Your task to perform on an android device: check the backup settings in the google photos Image 0: 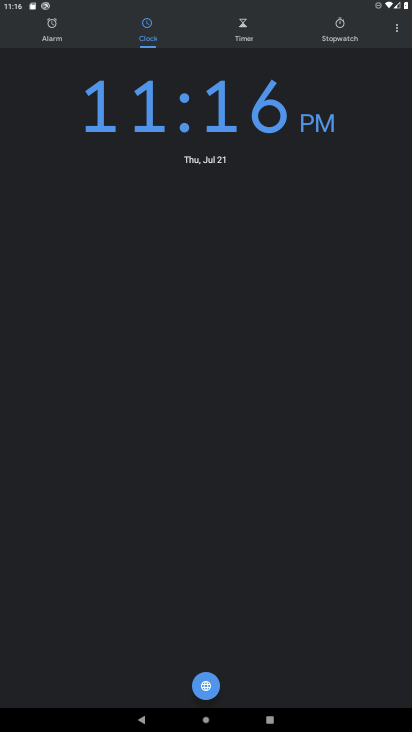
Step 0: press home button
Your task to perform on an android device: check the backup settings in the google photos Image 1: 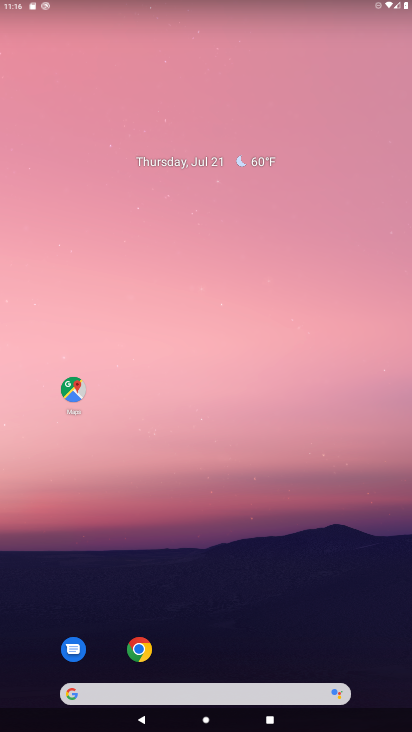
Step 1: drag from (383, 698) to (312, 51)
Your task to perform on an android device: check the backup settings in the google photos Image 2: 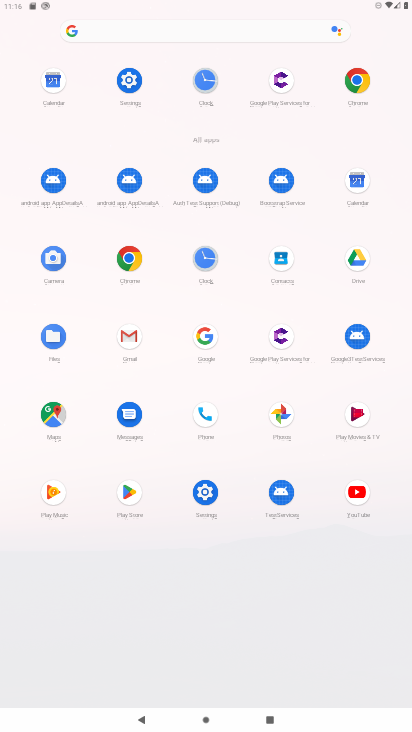
Step 2: click (289, 410)
Your task to perform on an android device: check the backup settings in the google photos Image 3: 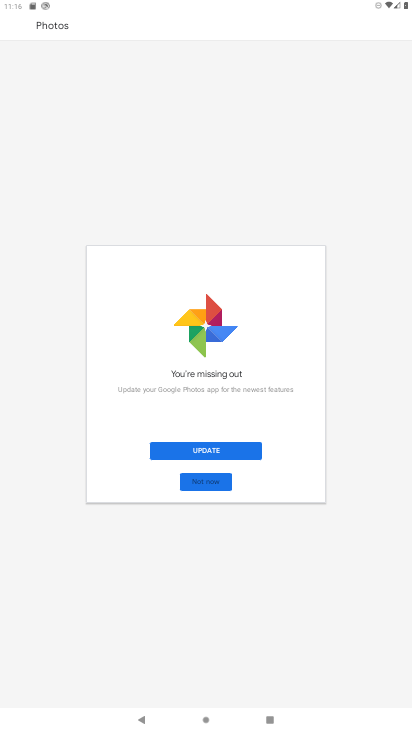
Step 3: click (199, 449)
Your task to perform on an android device: check the backup settings in the google photos Image 4: 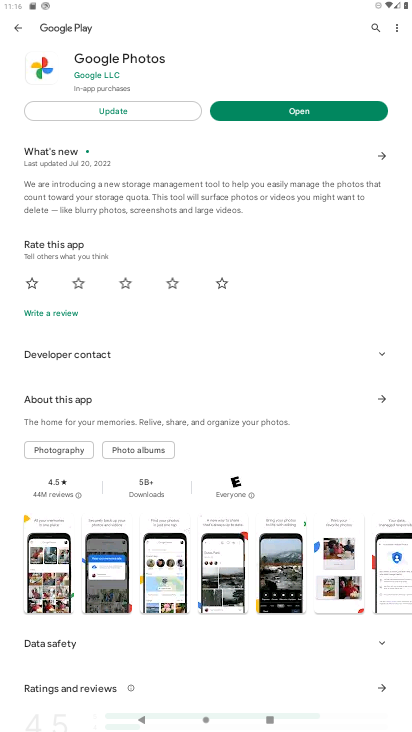
Step 4: click (302, 110)
Your task to perform on an android device: check the backup settings in the google photos Image 5: 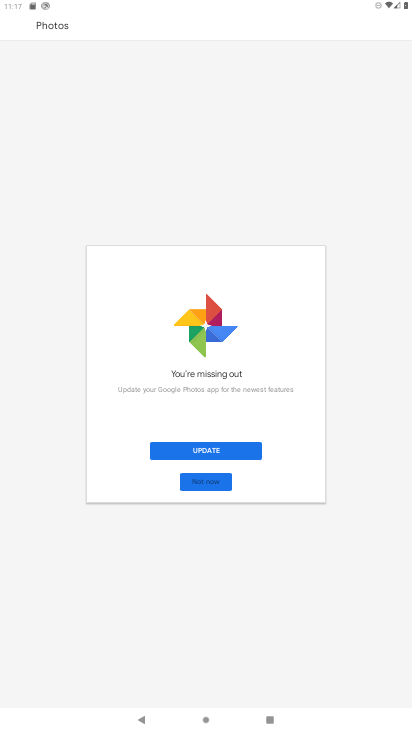
Step 5: click (202, 446)
Your task to perform on an android device: check the backup settings in the google photos Image 6: 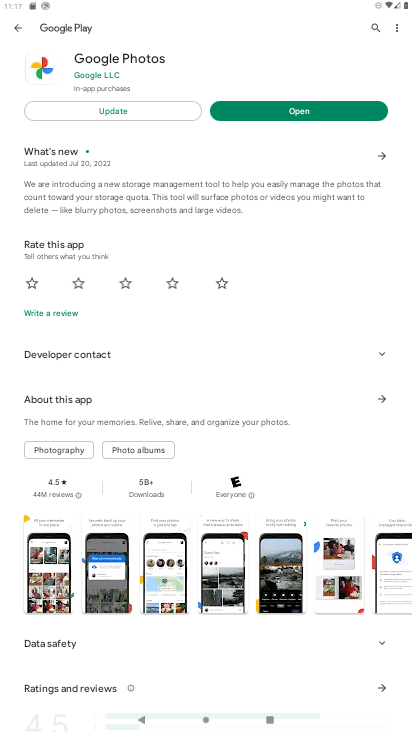
Step 6: click (302, 113)
Your task to perform on an android device: check the backup settings in the google photos Image 7: 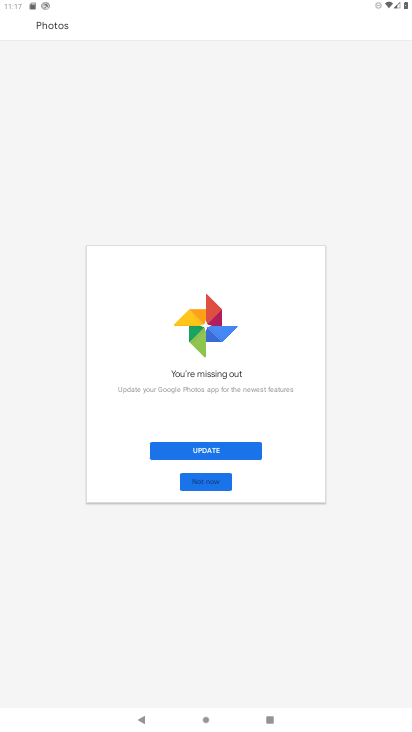
Step 7: click (238, 454)
Your task to perform on an android device: check the backup settings in the google photos Image 8: 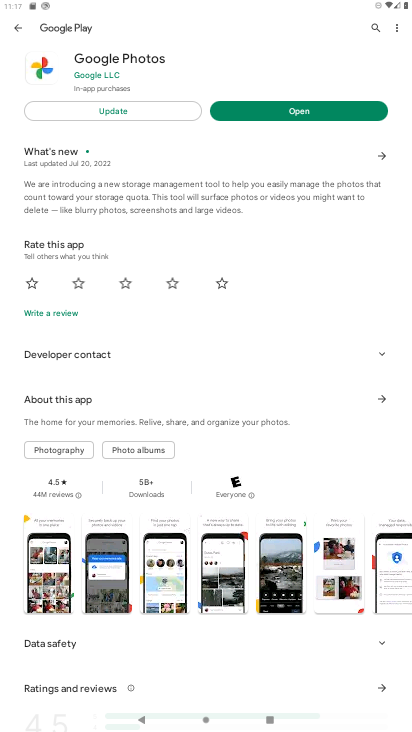
Step 8: click (102, 107)
Your task to perform on an android device: check the backup settings in the google photos Image 9: 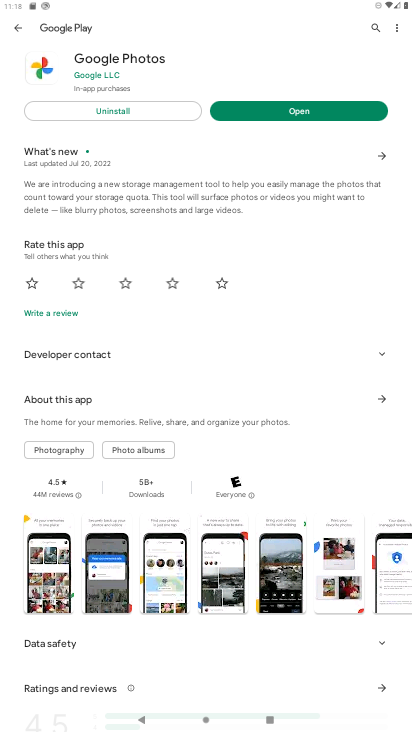
Step 9: click (292, 110)
Your task to perform on an android device: check the backup settings in the google photos Image 10: 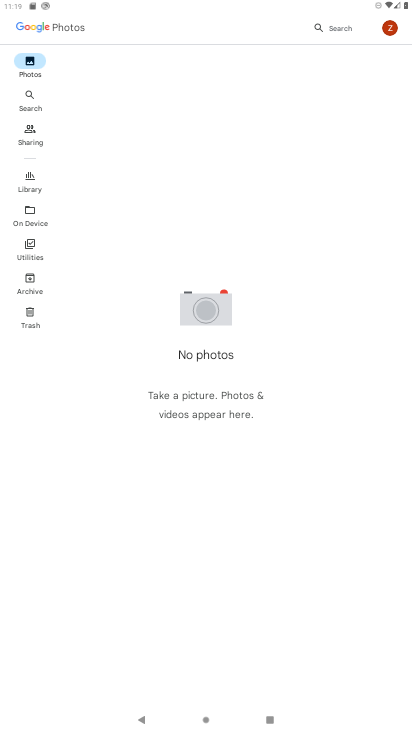
Step 10: task complete